Your task to perform on an android device: Show me the alarms in the clock app Image 0: 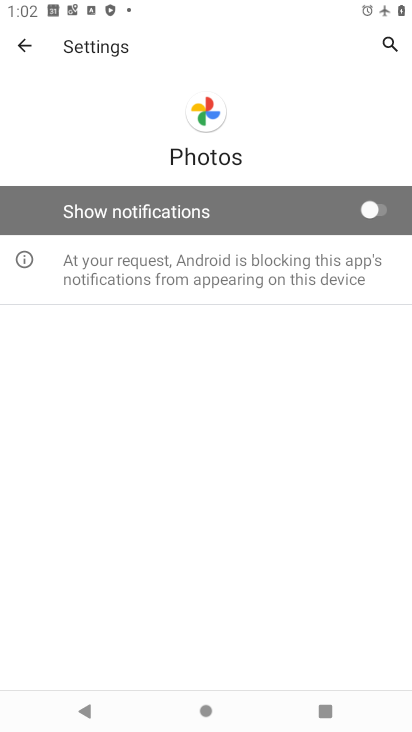
Step 0: press home button
Your task to perform on an android device: Show me the alarms in the clock app Image 1: 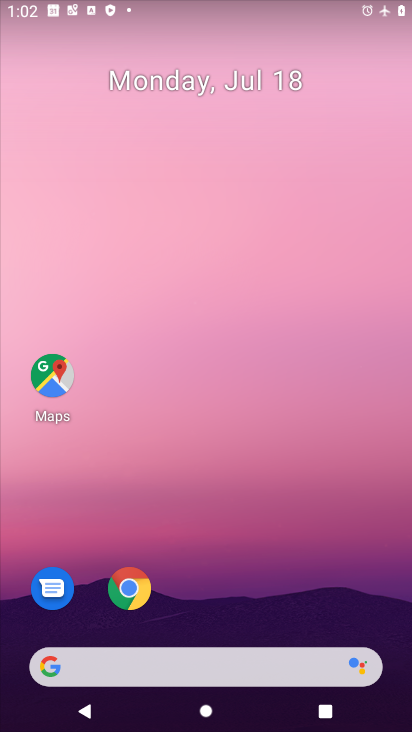
Step 1: drag from (207, 554) to (158, 147)
Your task to perform on an android device: Show me the alarms in the clock app Image 2: 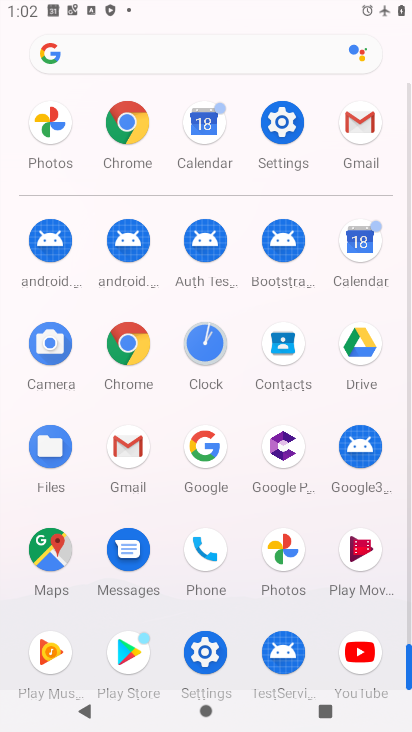
Step 2: click (195, 343)
Your task to perform on an android device: Show me the alarms in the clock app Image 3: 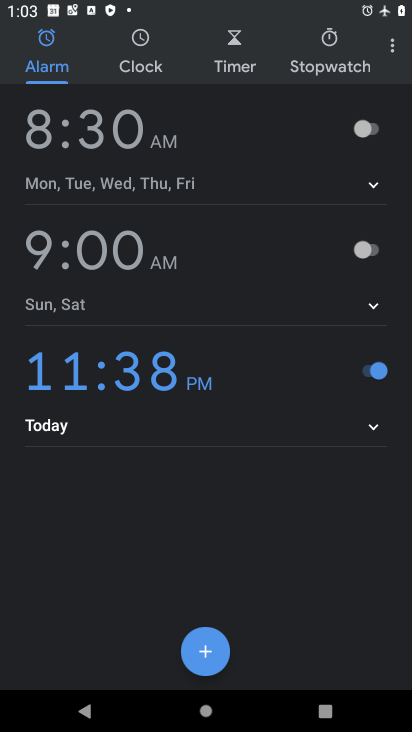
Step 3: task complete